Your task to perform on an android device: open chrome privacy settings Image 0: 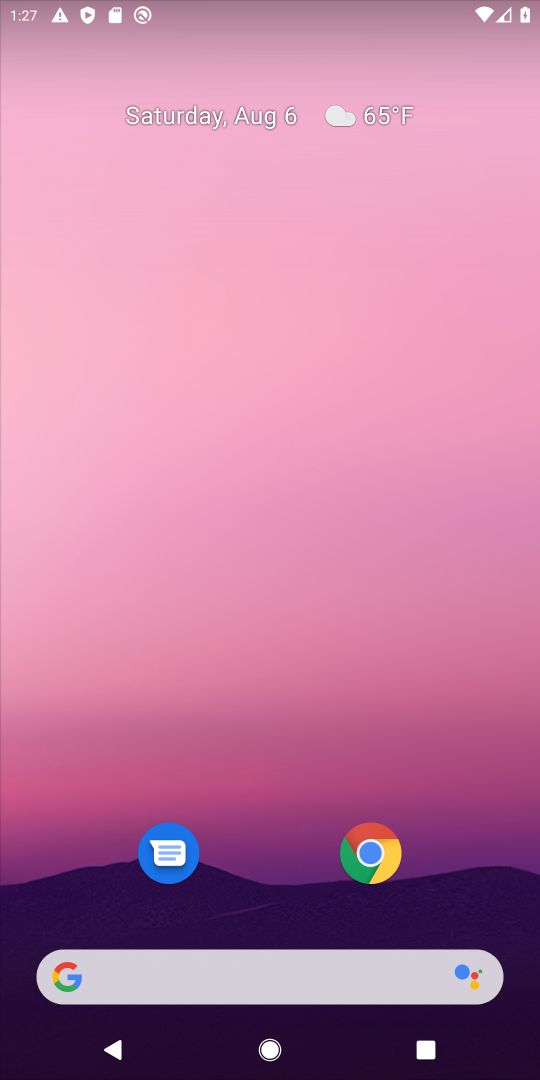
Step 0: click (378, 853)
Your task to perform on an android device: open chrome privacy settings Image 1: 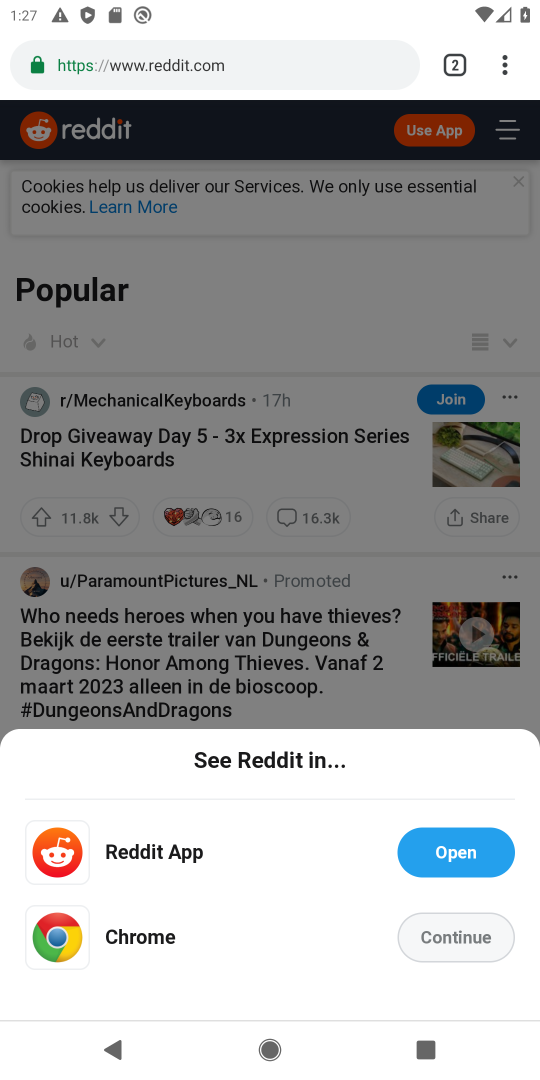
Step 1: click (502, 75)
Your task to perform on an android device: open chrome privacy settings Image 2: 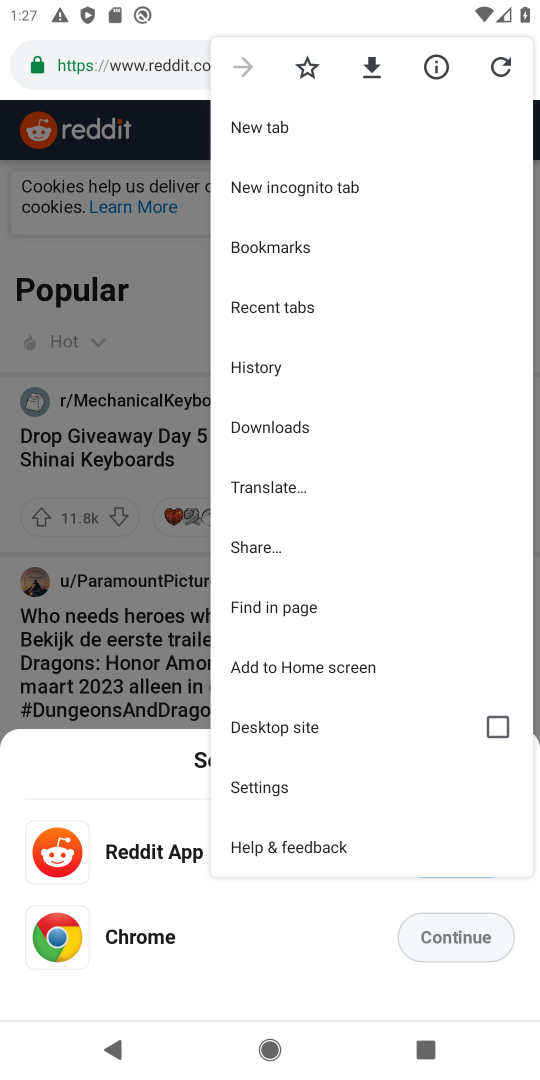
Step 2: click (267, 782)
Your task to perform on an android device: open chrome privacy settings Image 3: 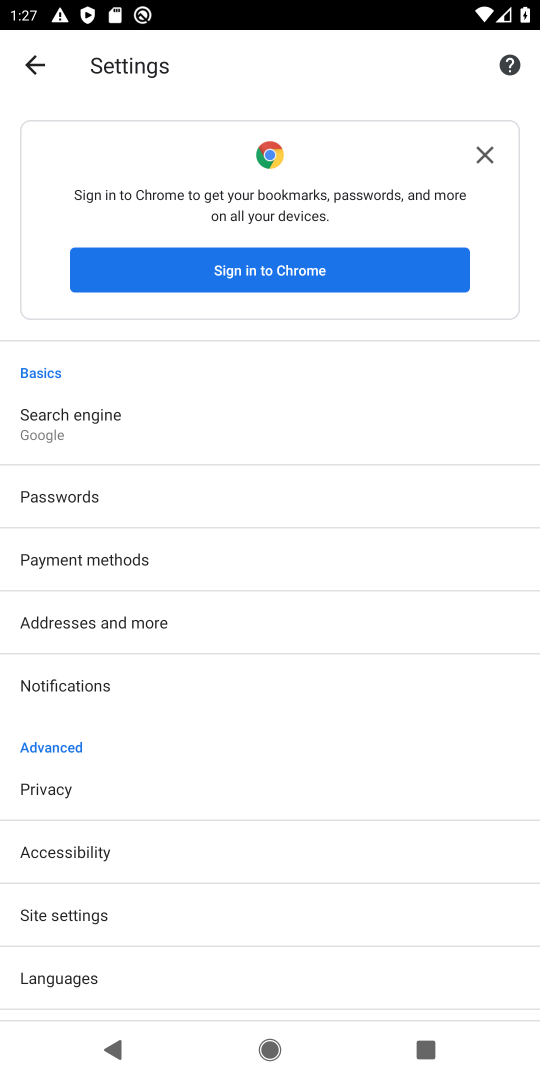
Step 3: click (47, 790)
Your task to perform on an android device: open chrome privacy settings Image 4: 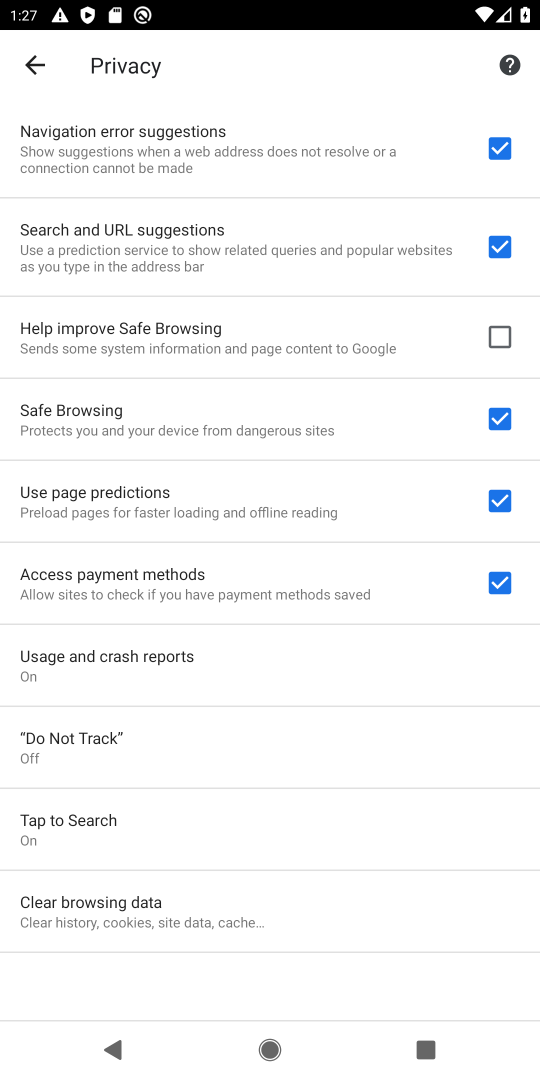
Step 4: task complete